Your task to perform on an android device: Search for pizza restaurants on Maps Image 0: 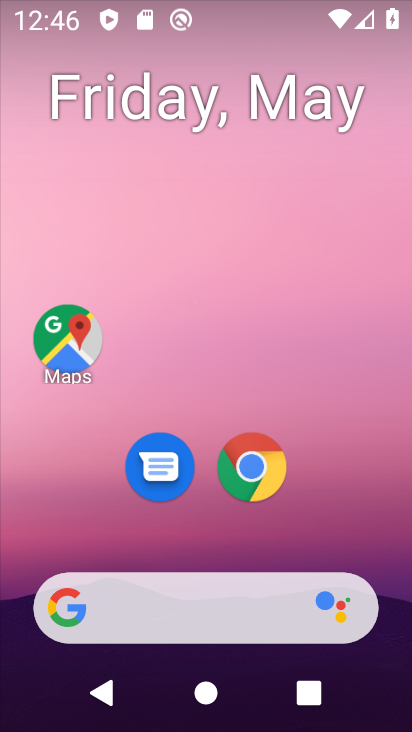
Step 0: drag from (388, 702) to (355, 186)
Your task to perform on an android device: Search for pizza restaurants on Maps Image 1: 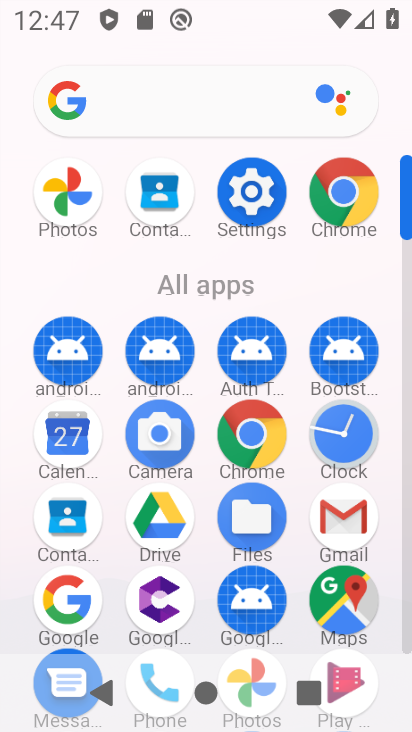
Step 1: click (313, 577)
Your task to perform on an android device: Search for pizza restaurants on Maps Image 2: 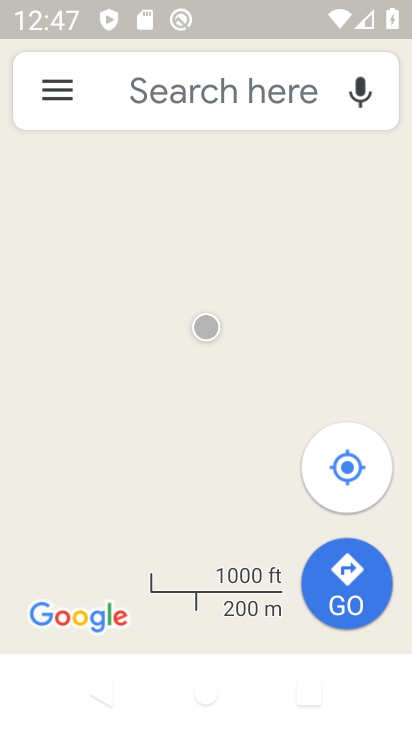
Step 2: click (172, 67)
Your task to perform on an android device: Search for pizza restaurants on Maps Image 3: 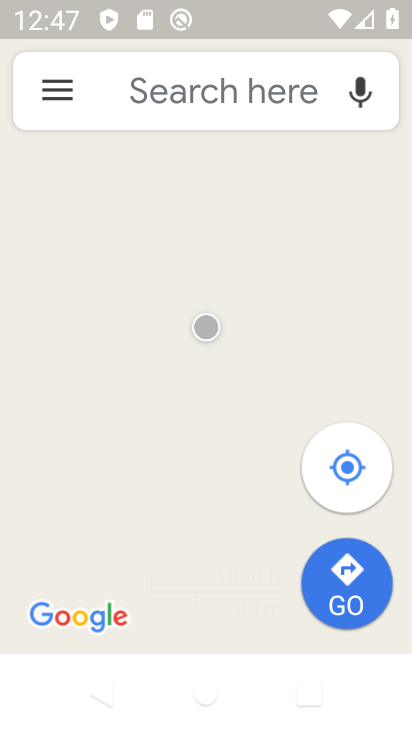
Step 3: click (176, 74)
Your task to perform on an android device: Search for pizza restaurants on Maps Image 4: 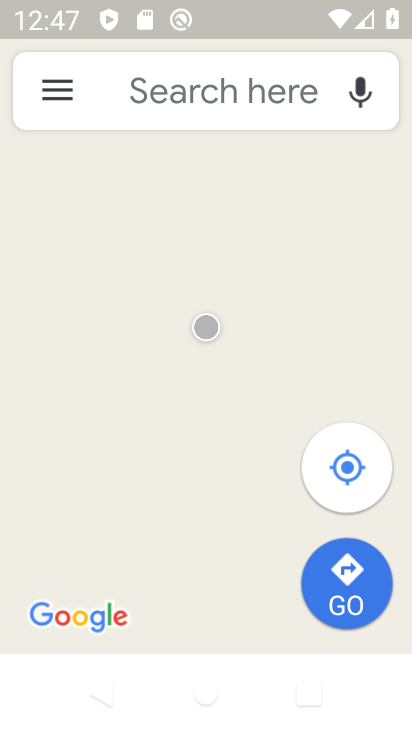
Step 4: click (176, 74)
Your task to perform on an android device: Search for pizza restaurants on Maps Image 5: 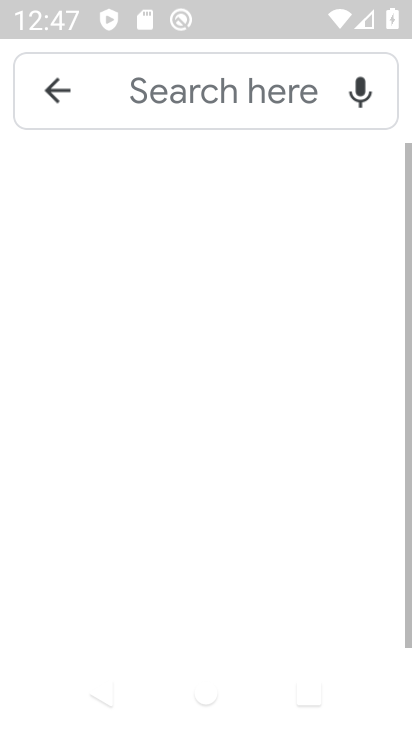
Step 5: click (177, 76)
Your task to perform on an android device: Search for pizza restaurants on Maps Image 6: 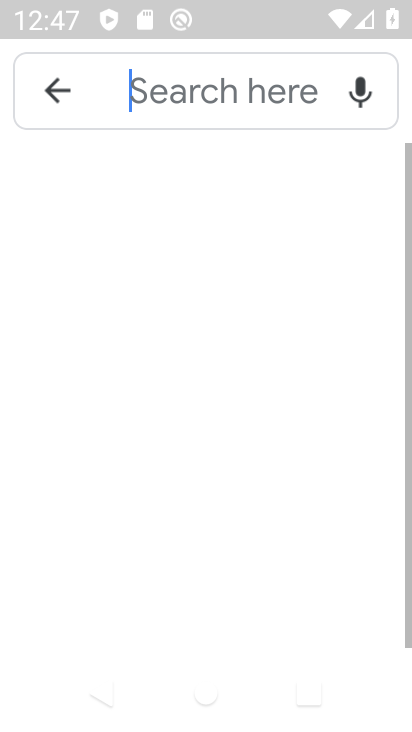
Step 6: click (186, 89)
Your task to perform on an android device: Search for pizza restaurants on Maps Image 7: 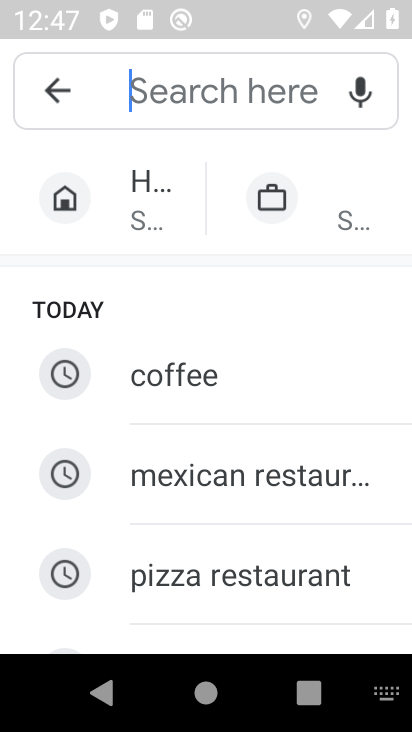
Step 7: type "pizza restaurants "
Your task to perform on an android device: Search for pizza restaurants on Maps Image 8: 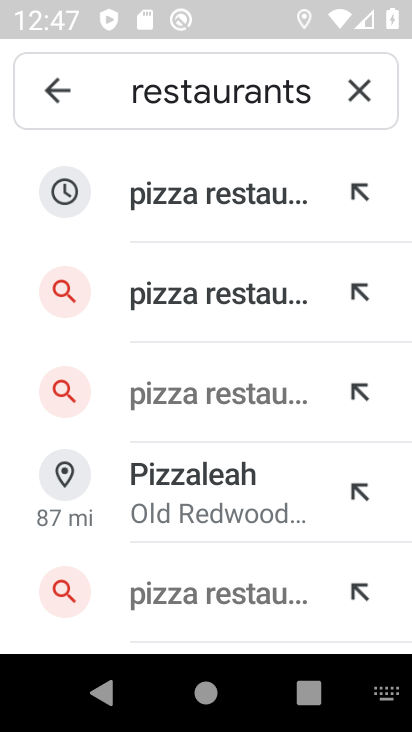
Step 8: click (246, 194)
Your task to perform on an android device: Search for pizza restaurants on Maps Image 9: 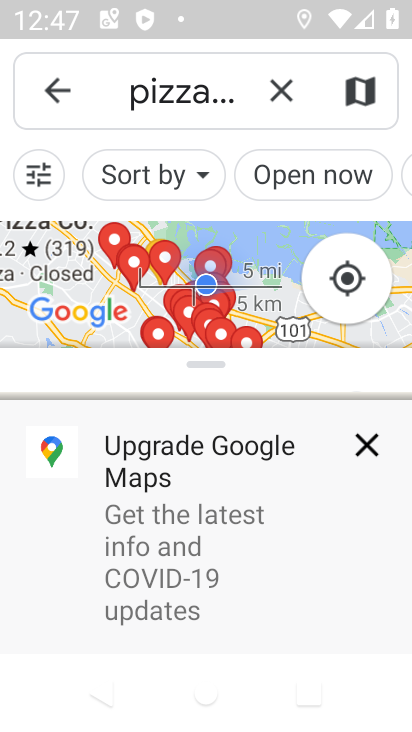
Step 9: task complete